Your task to perform on an android device: Show me the alarms in the clock app Image 0: 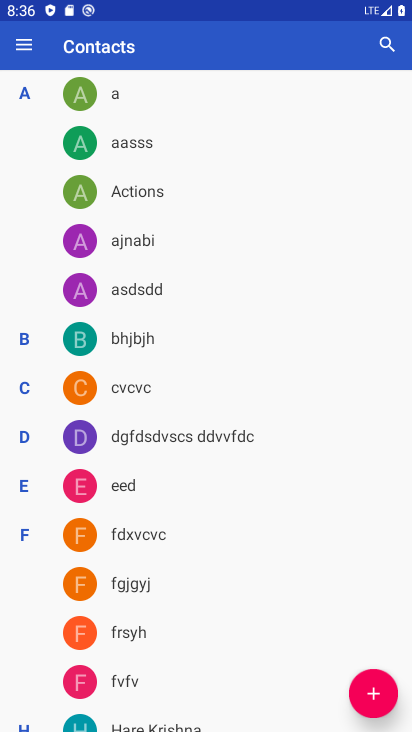
Step 0: press home button
Your task to perform on an android device: Show me the alarms in the clock app Image 1: 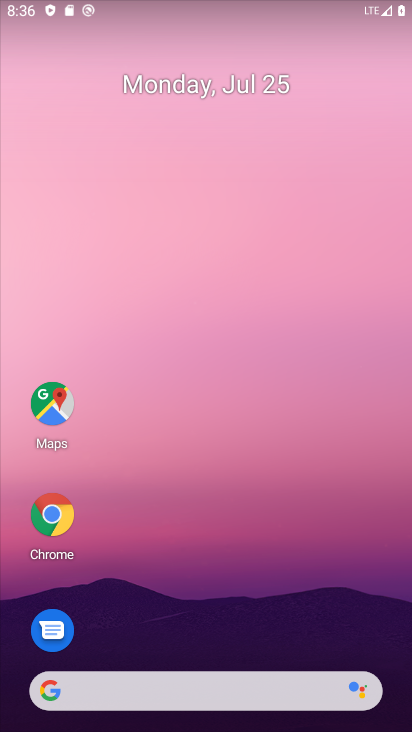
Step 1: drag from (156, 463) to (320, 136)
Your task to perform on an android device: Show me the alarms in the clock app Image 2: 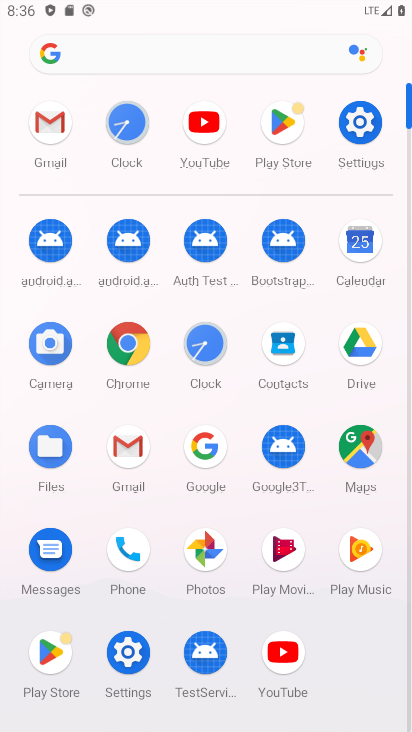
Step 2: click (205, 355)
Your task to perform on an android device: Show me the alarms in the clock app Image 3: 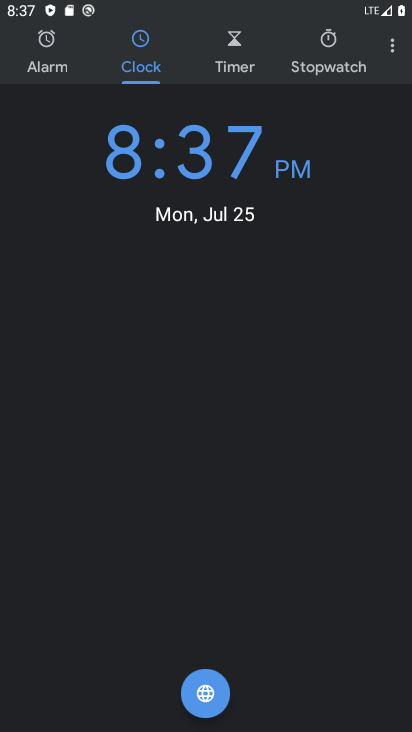
Step 3: click (65, 63)
Your task to perform on an android device: Show me the alarms in the clock app Image 4: 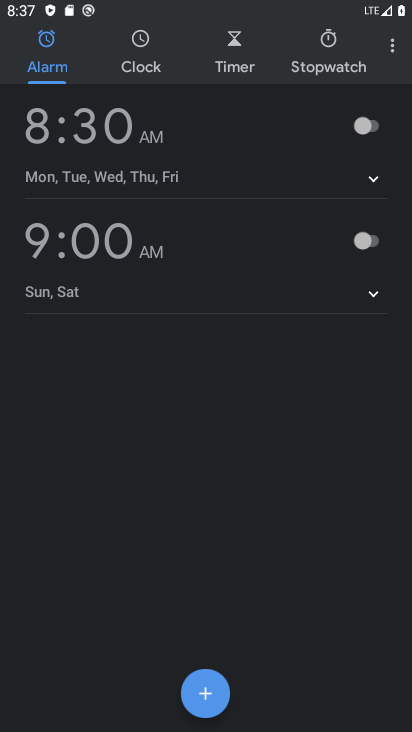
Step 4: click (392, 44)
Your task to perform on an android device: Show me the alarms in the clock app Image 5: 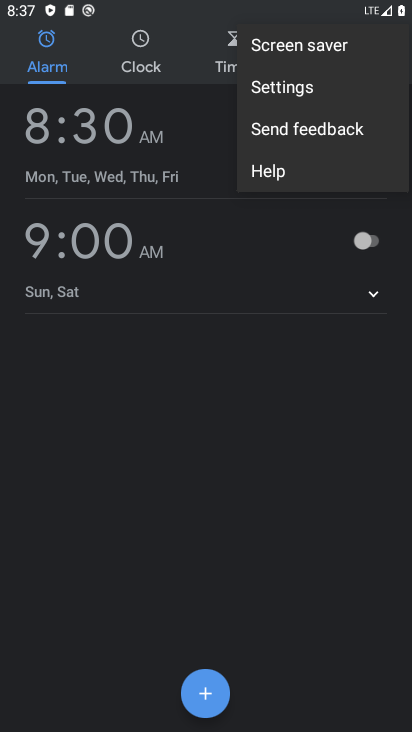
Step 5: click (376, 371)
Your task to perform on an android device: Show me the alarms in the clock app Image 6: 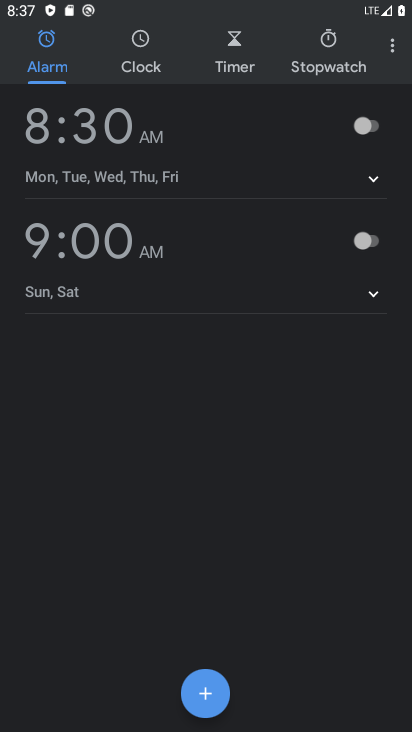
Step 6: task complete